Your task to perform on an android device: What's the weather? Image 0: 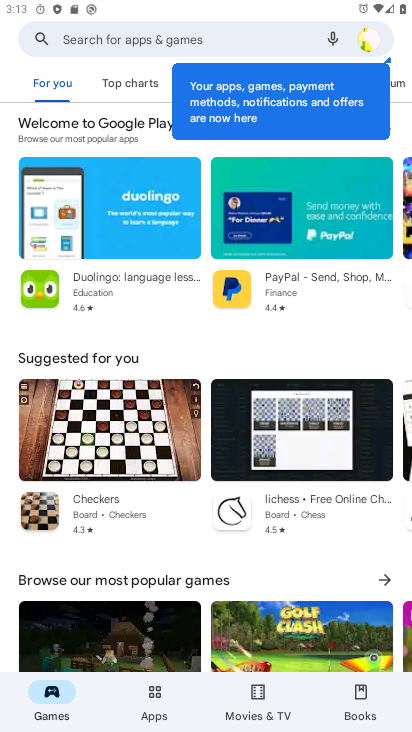
Step 0: press home button
Your task to perform on an android device: What's the weather? Image 1: 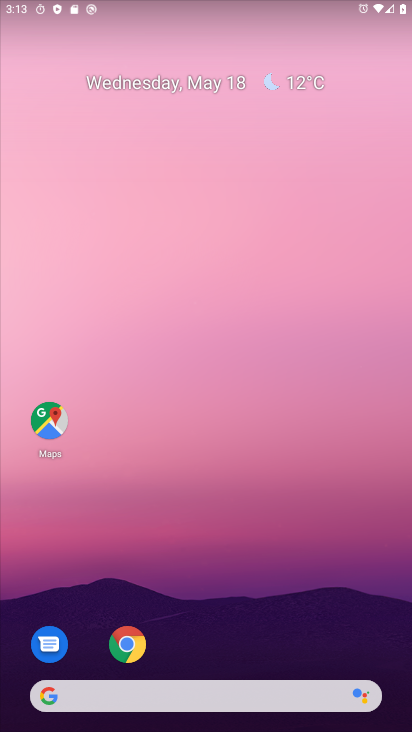
Step 1: click (302, 79)
Your task to perform on an android device: What's the weather? Image 2: 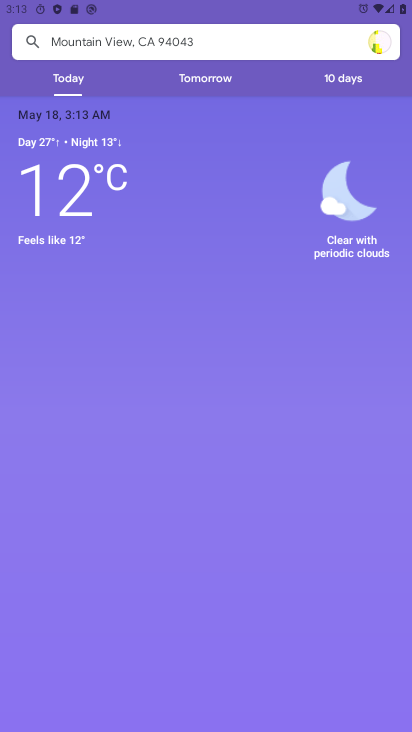
Step 2: task complete